Your task to perform on an android device: What's the weather going to be this weekend? Image 0: 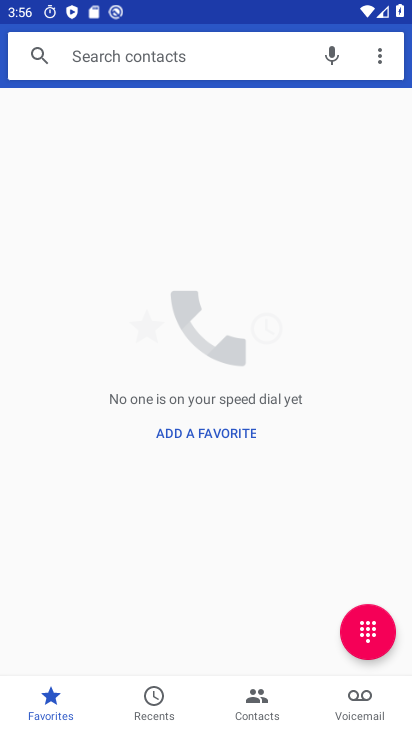
Step 0: press back button
Your task to perform on an android device: What's the weather going to be this weekend? Image 1: 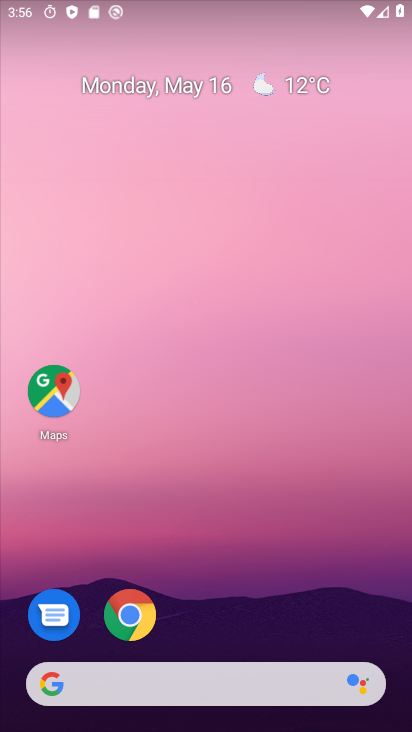
Step 1: drag from (322, 584) to (165, 93)
Your task to perform on an android device: What's the weather going to be this weekend? Image 2: 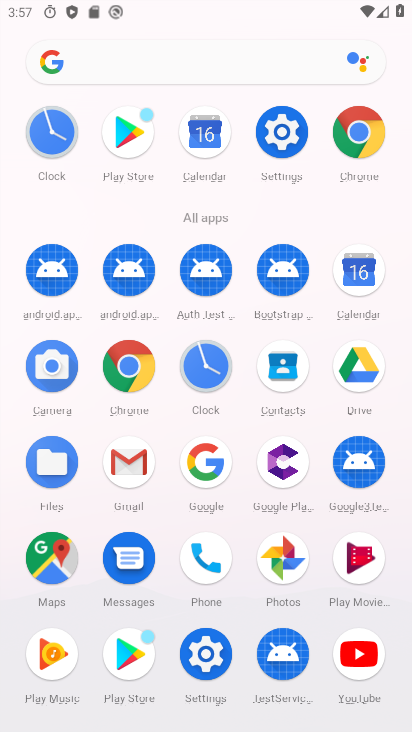
Step 2: press back button
Your task to perform on an android device: What's the weather going to be this weekend? Image 3: 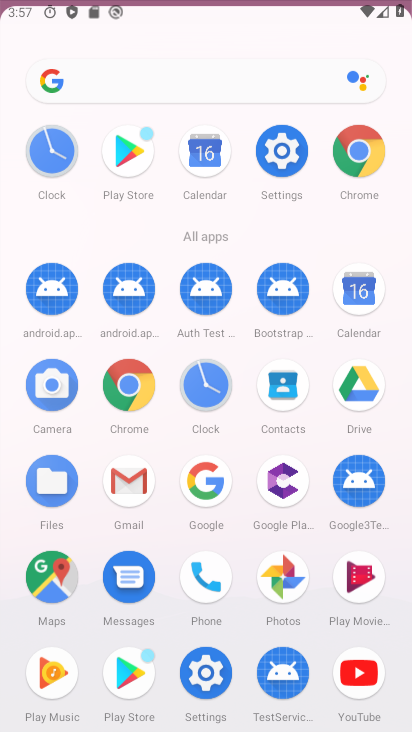
Step 3: press back button
Your task to perform on an android device: What's the weather going to be this weekend? Image 4: 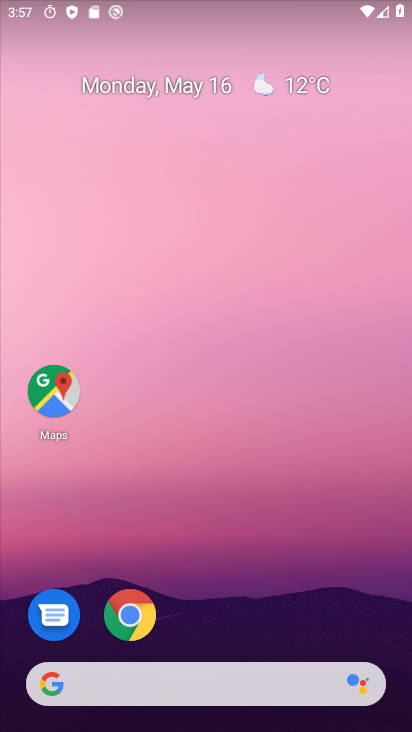
Step 4: press back button
Your task to perform on an android device: What's the weather going to be this weekend? Image 5: 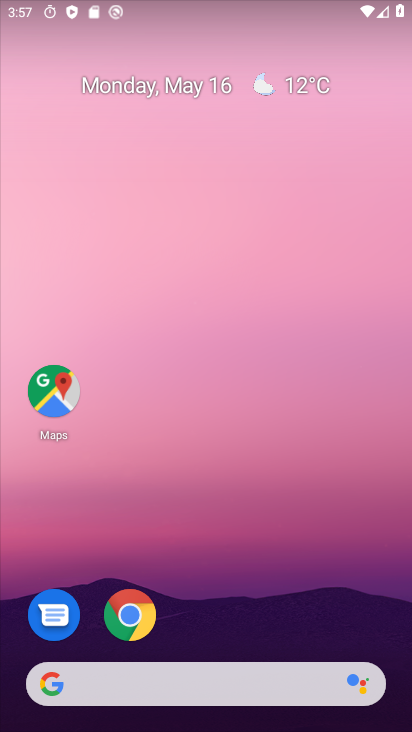
Step 5: drag from (2, 213) to (395, 338)
Your task to perform on an android device: What's the weather going to be this weekend? Image 6: 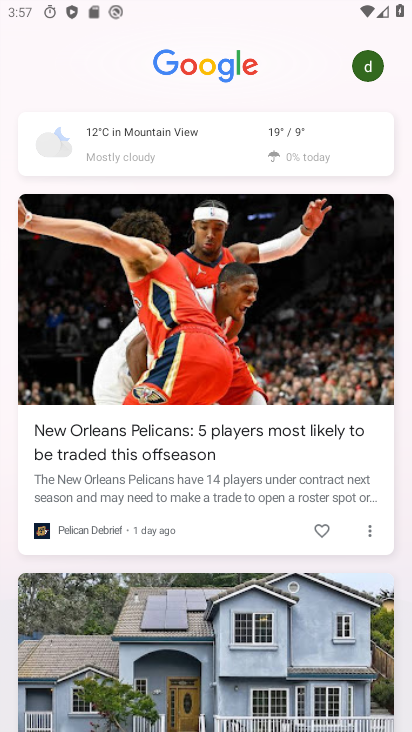
Step 6: click (182, 149)
Your task to perform on an android device: What's the weather going to be this weekend? Image 7: 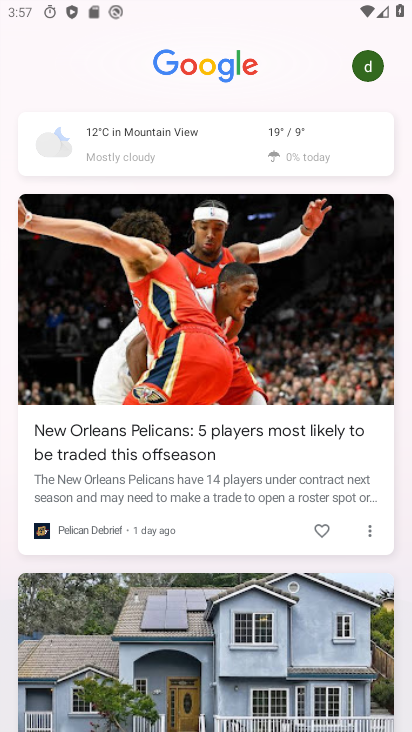
Step 7: click (183, 150)
Your task to perform on an android device: What's the weather going to be this weekend? Image 8: 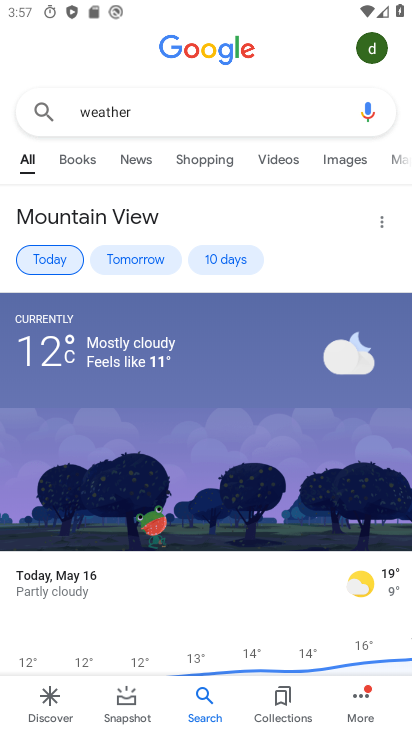
Step 8: click (239, 264)
Your task to perform on an android device: What's the weather going to be this weekend? Image 9: 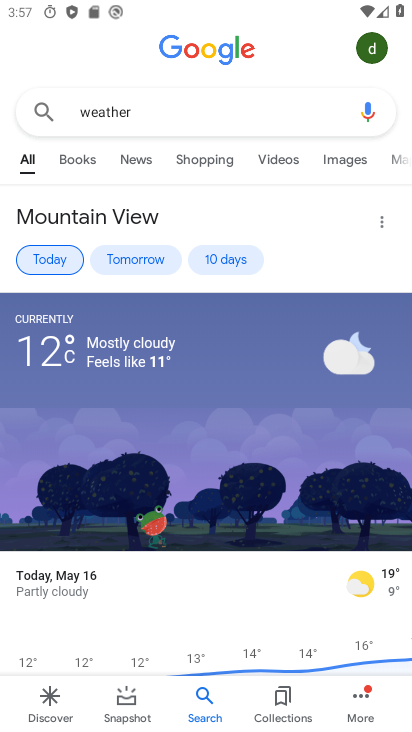
Step 9: click (238, 264)
Your task to perform on an android device: What's the weather going to be this weekend? Image 10: 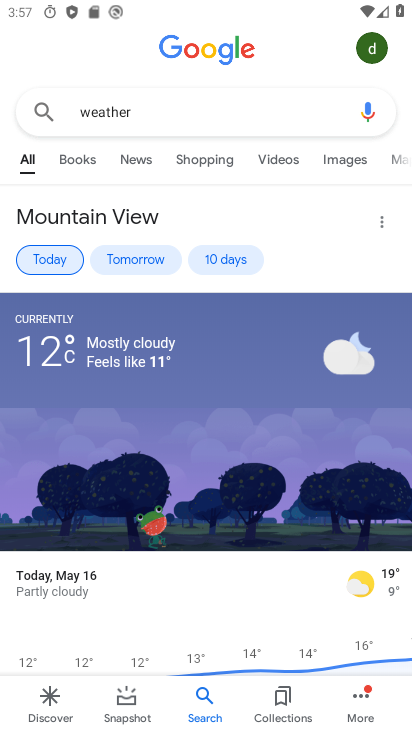
Step 10: click (238, 264)
Your task to perform on an android device: What's the weather going to be this weekend? Image 11: 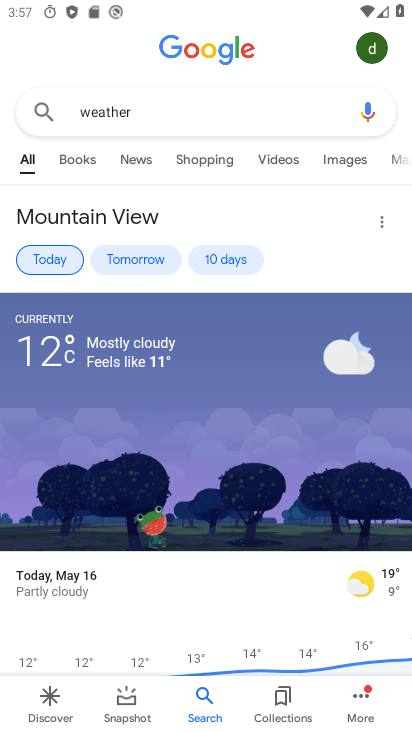
Step 11: click (238, 264)
Your task to perform on an android device: What's the weather going to be this weekend? Image 12: 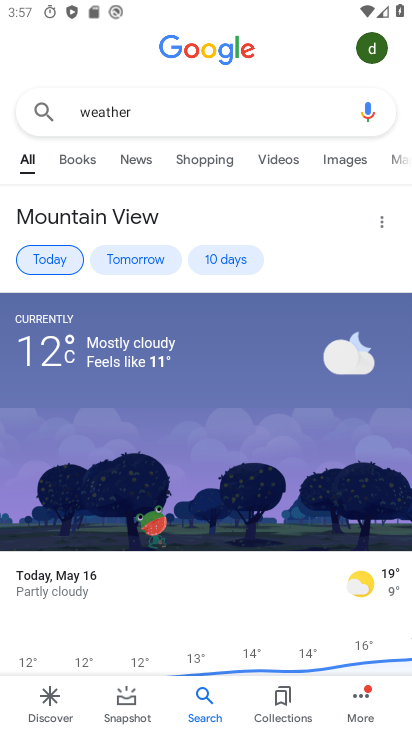
Step 12: click (239, 264)
Your task to perform on an android device: What's the weather going to be this weekend? Image 13: 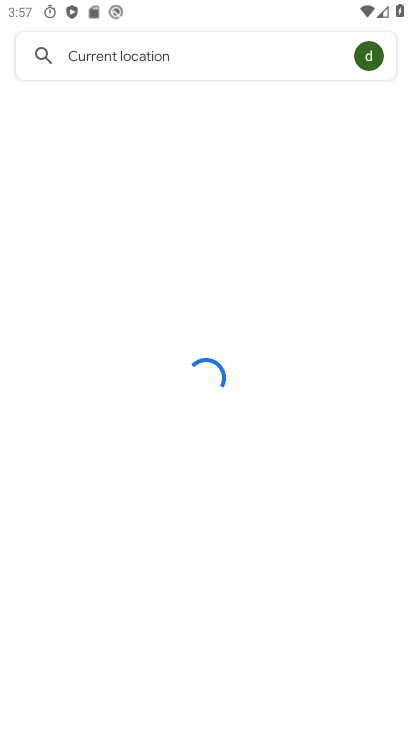
Step 13: click (240, 264)
Your task to perform on an android device: What's the weather going to be this weekend? Image 14: 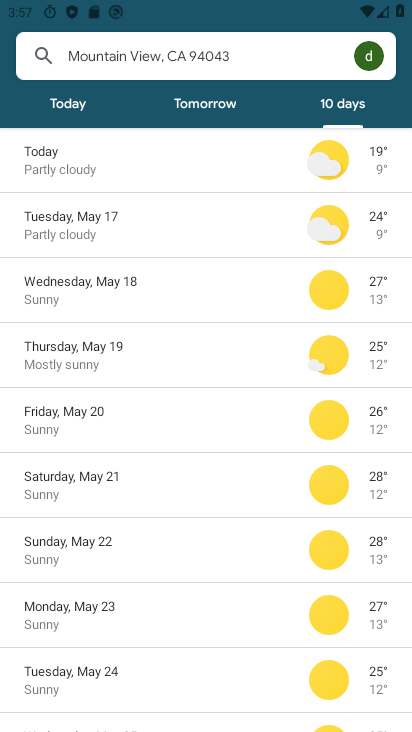
Step 14: drag from (242, 487) to (99, 3)
Your task to perform on an android device: What's the weather going to be this weekend? Image 15: 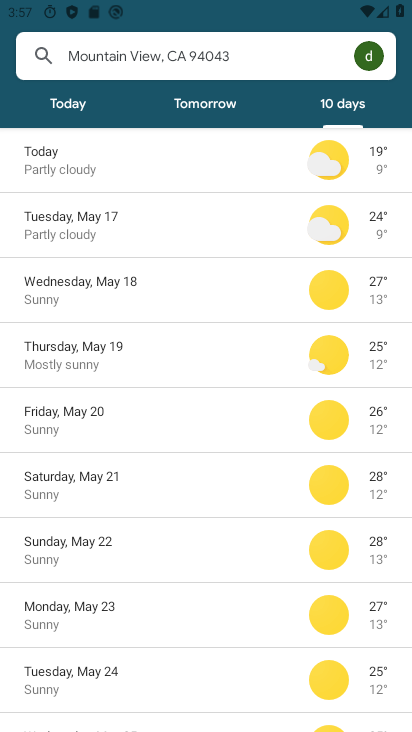
Step 15: drag from (245, 391) to (215, 28)
Your task to perform on an android device: What's the weather going to be this weekend? Image 16: 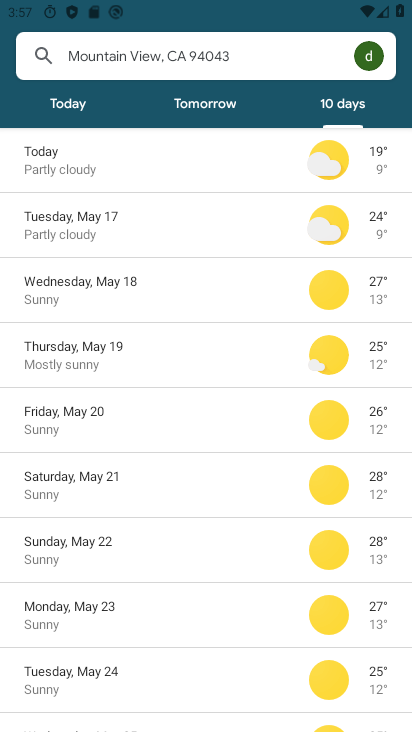
Step 16: drag from (261, 432) to (204, 131)
Your task to perform on an android device: What's the weather going to be this weekend? Image 17: 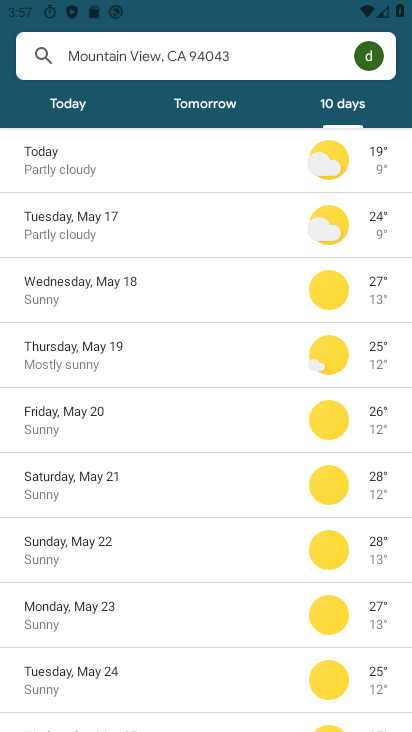
Step 17: drag from (261, 567) to (210, 243)
Your task to perform on an android device: What's the weather going to be this weekend? Image 18: 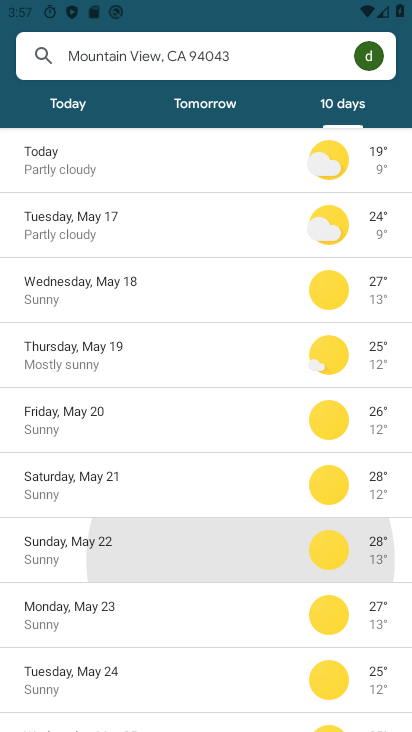
Step 18: drag from (209, 294) to (238, 700)
Your task to perform on an android device: What's the weather going to be this weekend? Image 19: 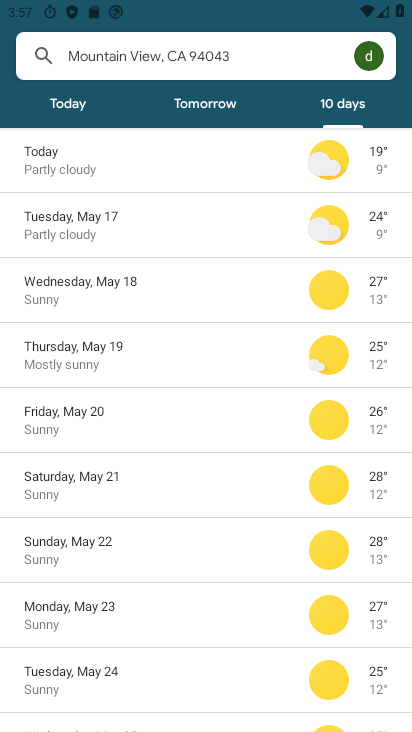
Step 19: drag from (161, 337) to (219, 727)
Your task to perform on an android device: What's the weather going to be this weekend? Image 20: 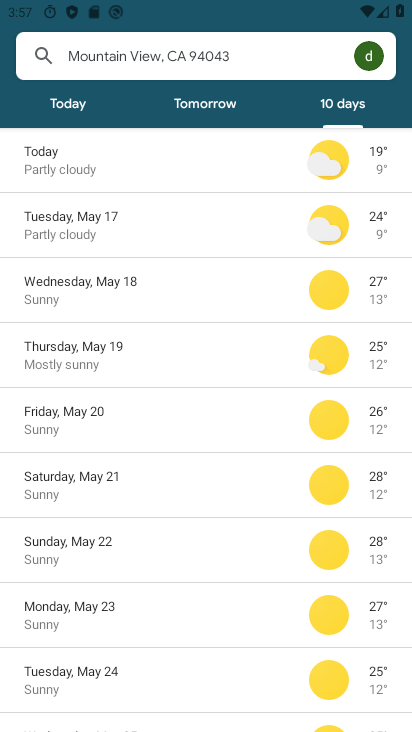
Step 20: drag from (200, 514) to (131, 171)
Your task to perform on an android device: What's the weather going to be this weekend? Image 21: 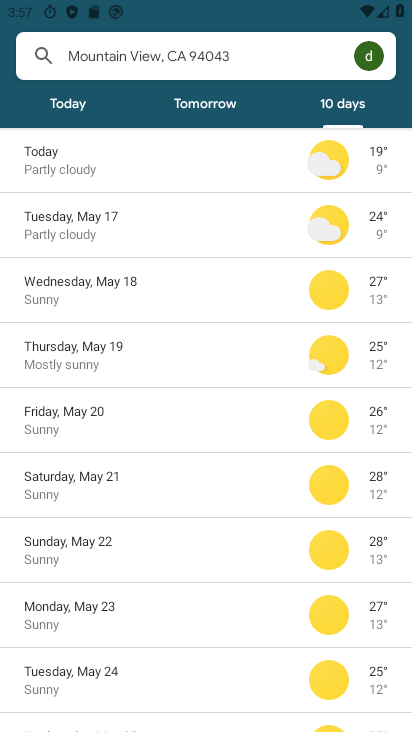
Step 21: click (240, 501)
Your task to perform on an android device: What's the weather going to be this weekend? Image 22: 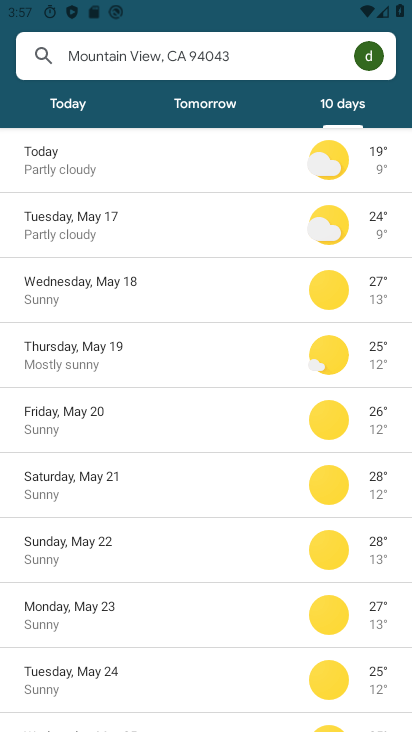
Step 22: task complete